Your task to perform on an android device: Go to notification settings Image 0: 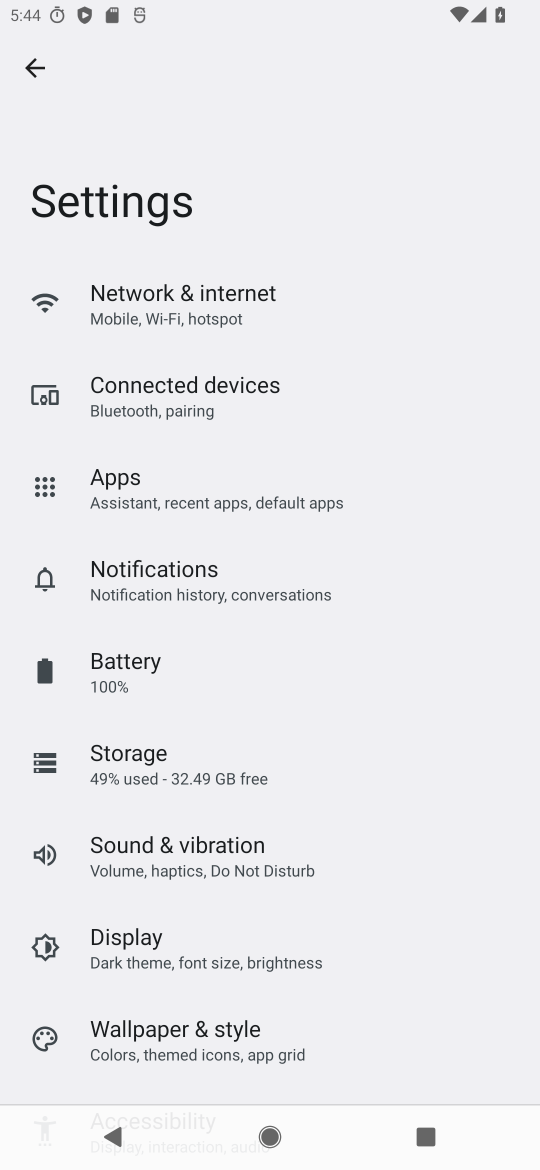
Step 0: click (188, 602)
Your task to perform on an android device: Go to notification settings Image 1: 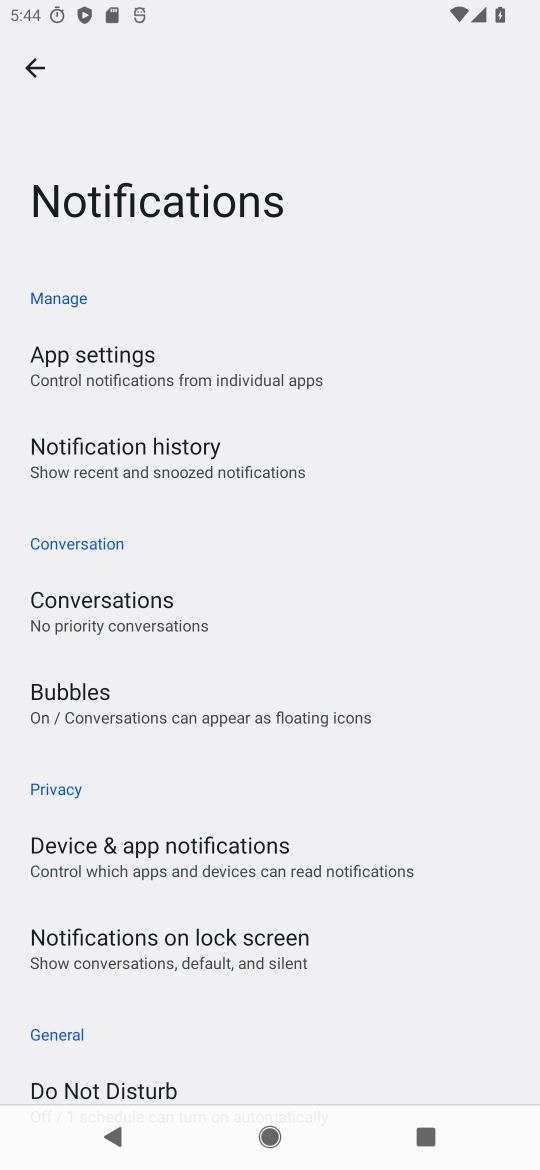
Step 1: task complete